Your task to perform on an android device: turn vacation reply on in the gmail app Image 0: 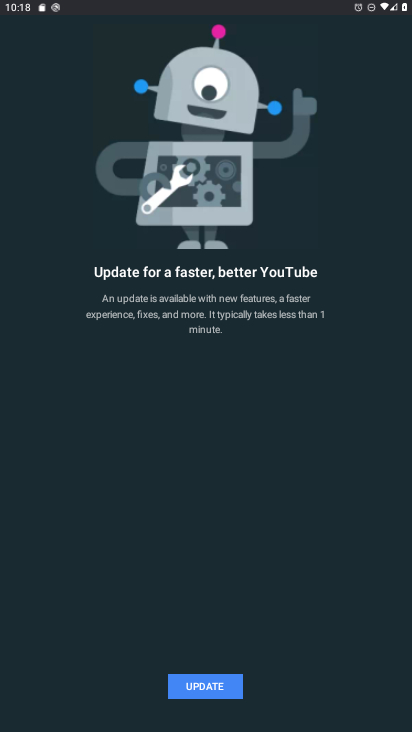
Step 0: press home button
Your task to perform on an android device: turn vacation reply on in the gmail app Image 1: 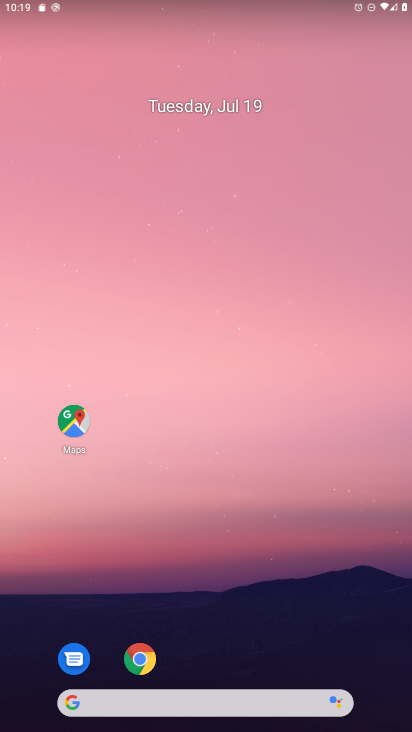
Step 1: drag from (232, 648) to (255, 271)
Your task to perform on an android device: turn vacation reply on in the gmail app Image 2: 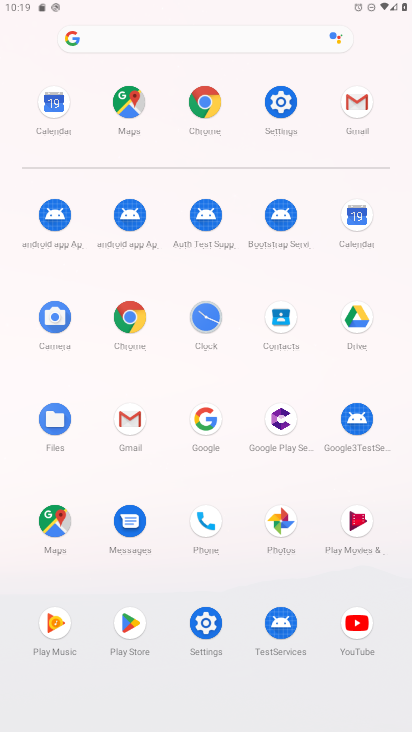
Step 2: click (366, 93)
Your task to perform on an android device: turn vacation reply on in the gmail app Image 3: 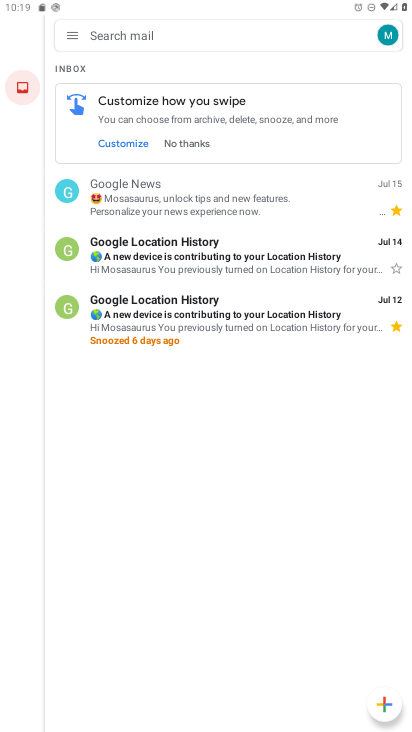
Step 3: click (72, 31)
Your task to perform on an android device: turn vacation reply on in the gmail app Image 4: 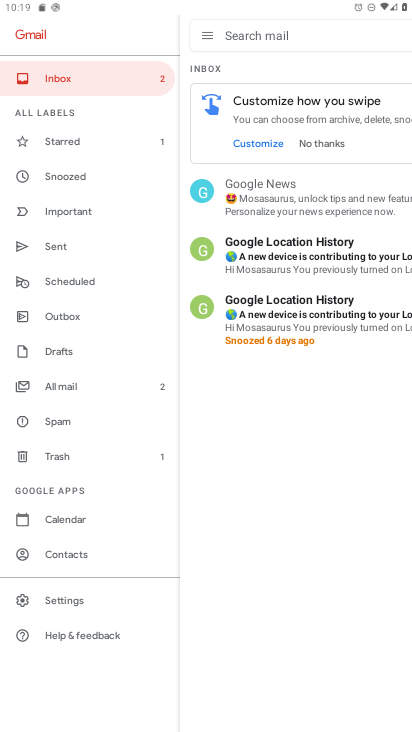
Step 4: click (96, 383)
Your task to perform on an android device: turn vacation reply on in the gmail app Image 5: 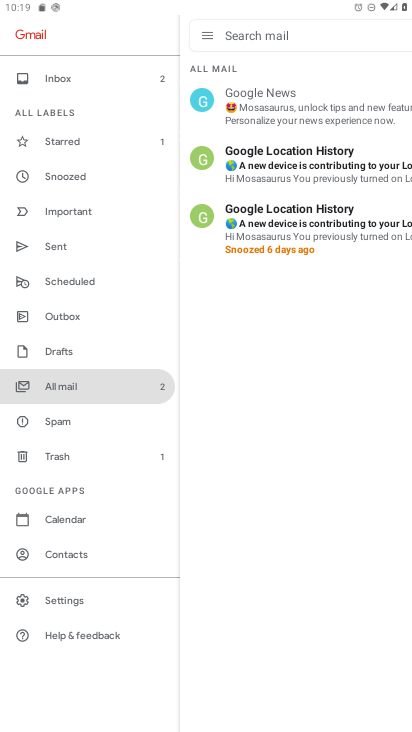
Step 5: click (50, 599)
Your task to perform on an android device: turn vacation reply on in the gmail app Image 6: 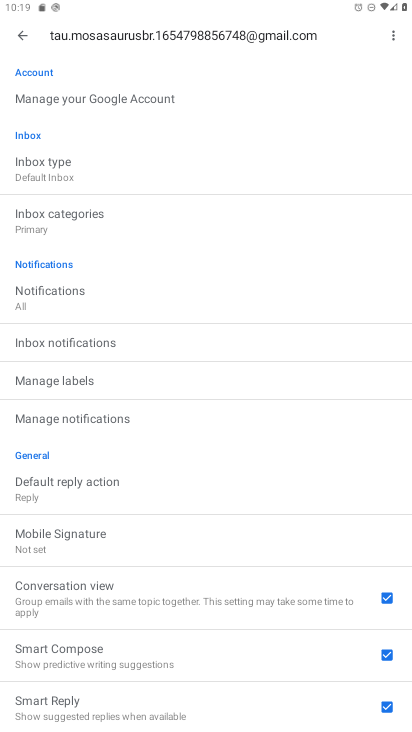
Step 6: drag from (139, 554) to (199, 159)
Your task to perform on an android device: turn vacation reply on in the gmail app Image 7: 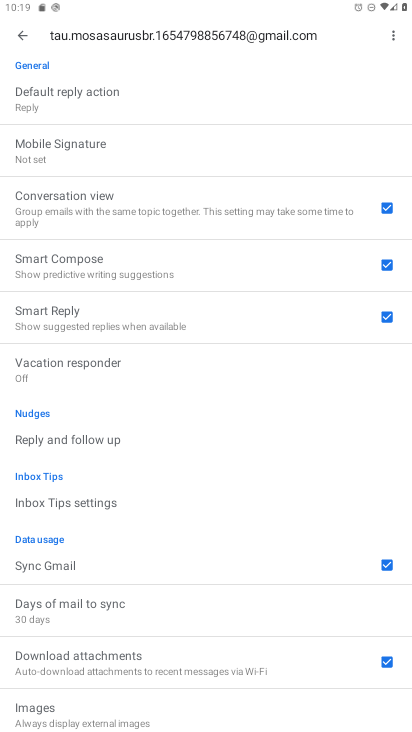
Step 7: click (104, 366)
Your task to perform on an android device: turn vacation reply on in the gmail app Image 8: 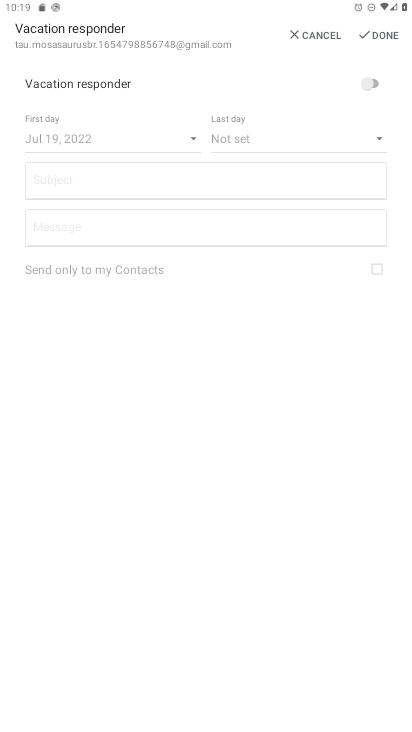
Step 8: click (366, 80)
Your task to perform on an android device: turn vacation reply on in the gmail app Image 9: 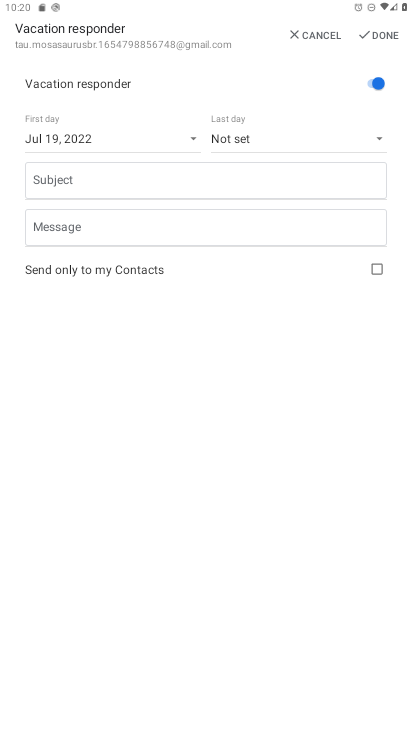
Step 9: task complete